Your task to perform on an android device: Show me productivity apps on the Play Store Image 0: 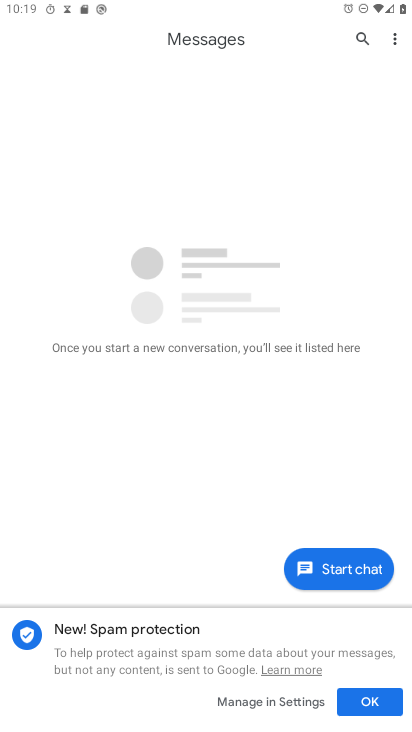
Step 0: press home button
Your task to perform on an android device: Show me productivity apps on the Play Store Image 1: 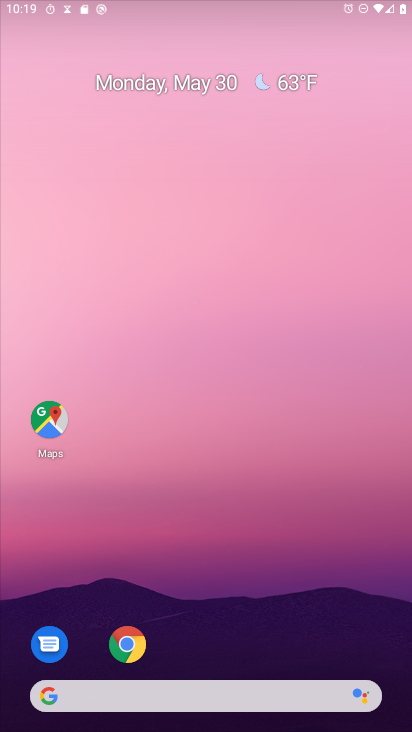
Step 1: drag from (200, 618) to (305, 31)
Your task to perform on an android device: Show me productivity apps on the Play Store Image 2: 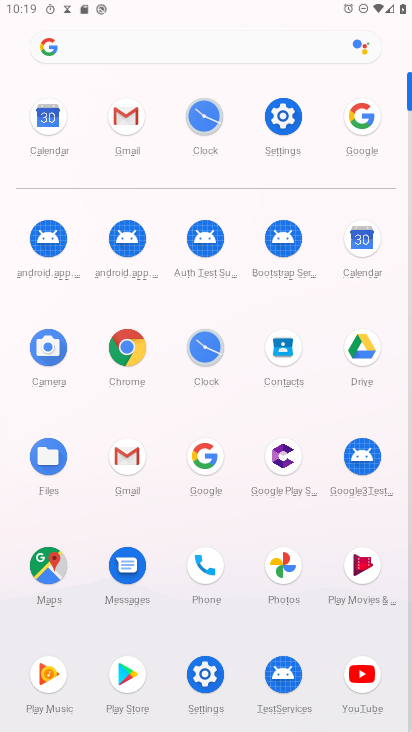
Step 2: click (129, 673)
Your task to perform on an android device: Show me productivity apps on the Play Store Image 3: 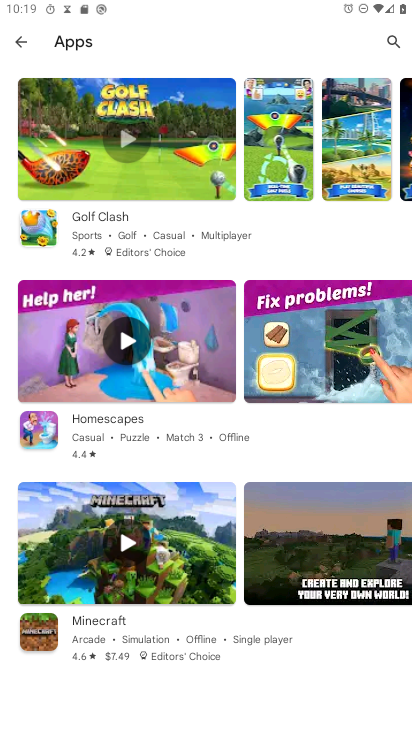
Step 3: drag from (163, 177) to (194, 635)
Your task to perform on an android device: Show me productivity apps on the Play Store Image 4: 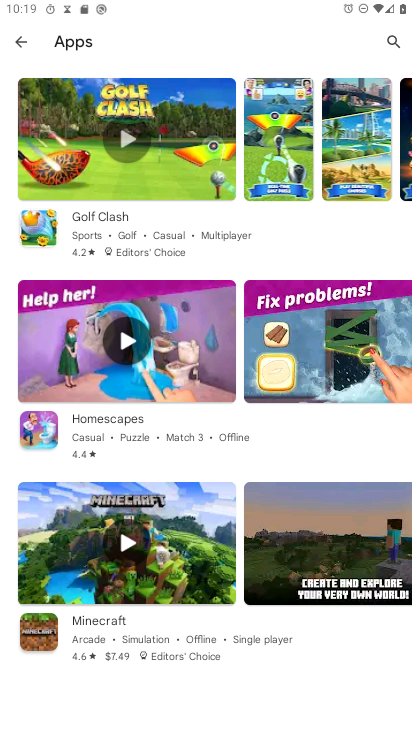
Step 4: press back button
Your task to perform on an android device: Show me productivity apps on the Play Store Image 5: 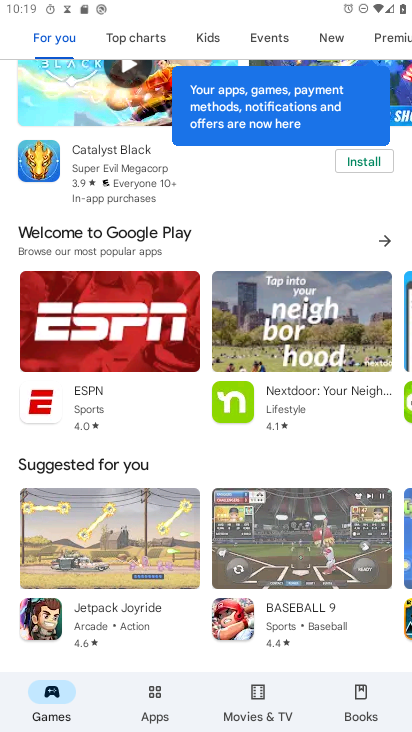
Step 5: click (150, 712)
Your task to perform on an android device: Show me productivity apps on the Play Store Image 6: 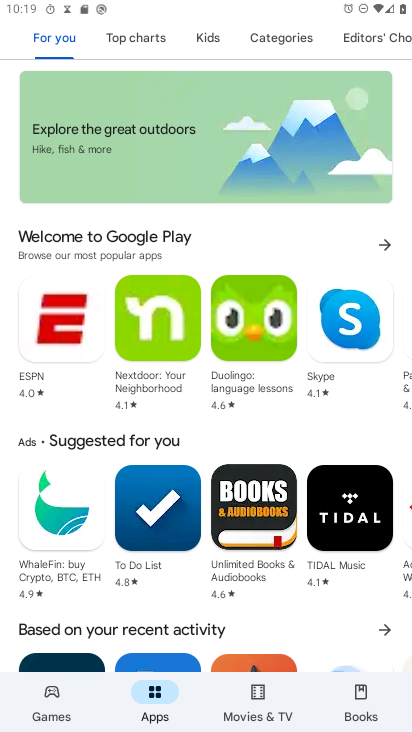
Step 6: click (292, 30)
Your task to perform on an android device: Show me productivity apps on the Play Store Image 7: 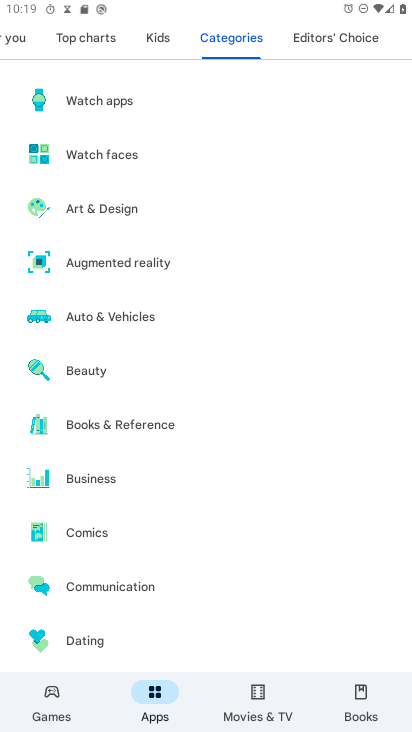
Step 7: drag from (246, 648) to (259, 39)
Your task to perform on an android device: Show me productivity apps on the Play Store Image 8: 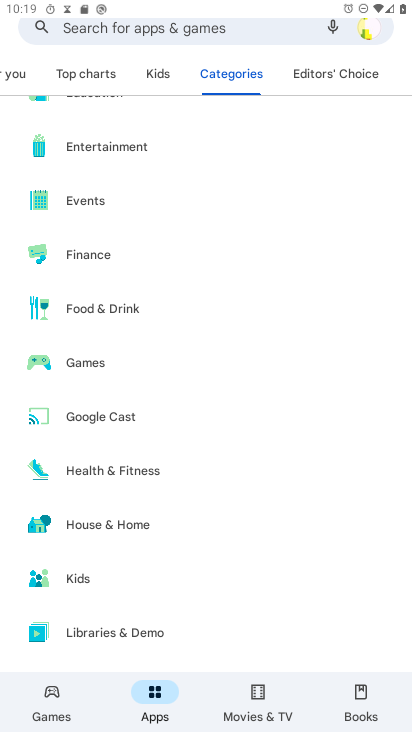
Step 8: drag from (223, 654) to (290, 10)
Your task to perform on an android device: Show me productivity apps on the Play Store Image 9: 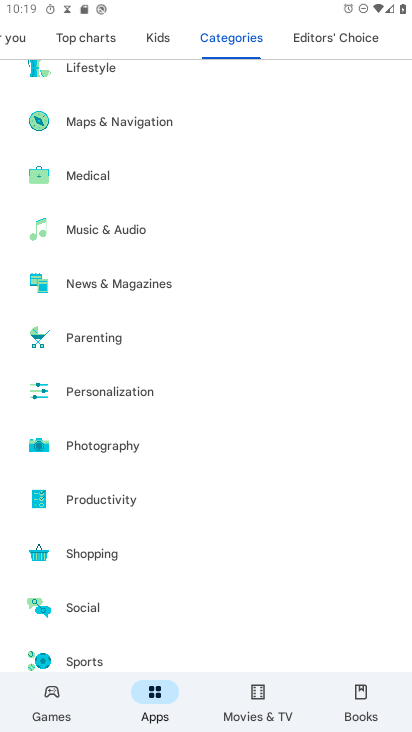
Step 9: click (102, 502)
Your task to perform on an android device: Show me productivity apps on the Play Store Image 10: 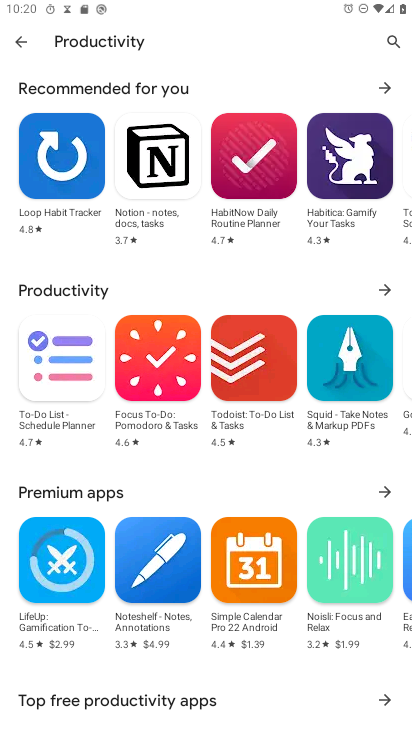
Step 10: task complete